Your task to perform on an android device: What's the weather today? Image 0: 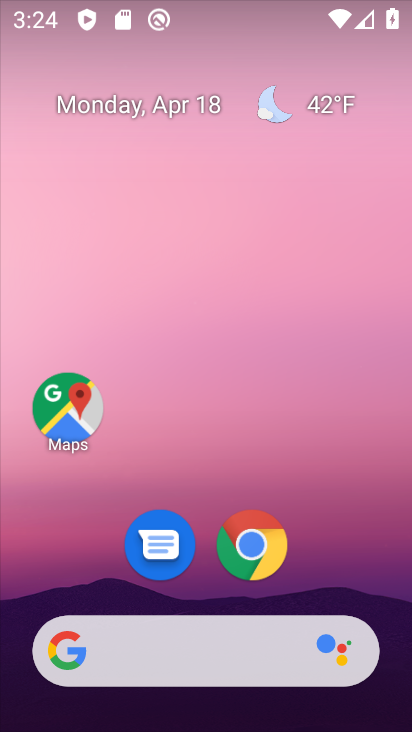
Step 0: click (212, 652)
Your task to perform on an android device: What's the weather today? Image 1: 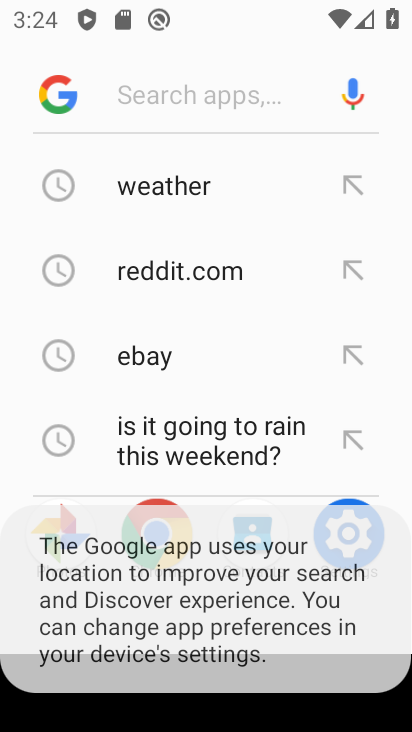
Step 1: click (183, 190)
Your task to perform on an android device: What's the weather today? Image 2: 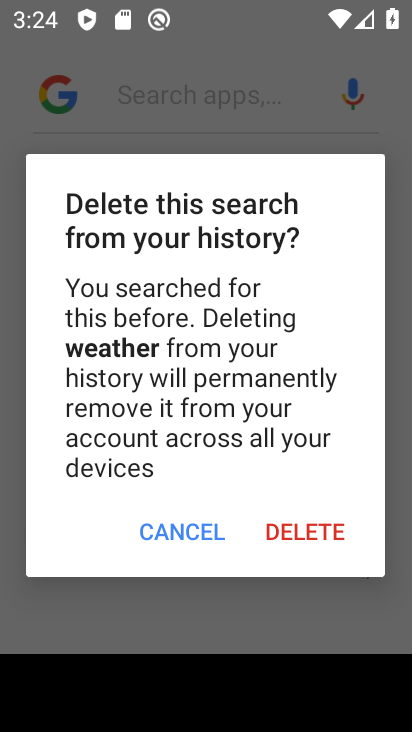
Step 2: click (183, 531)
Your task to perform on an android device: What's the weather today? Image 3: 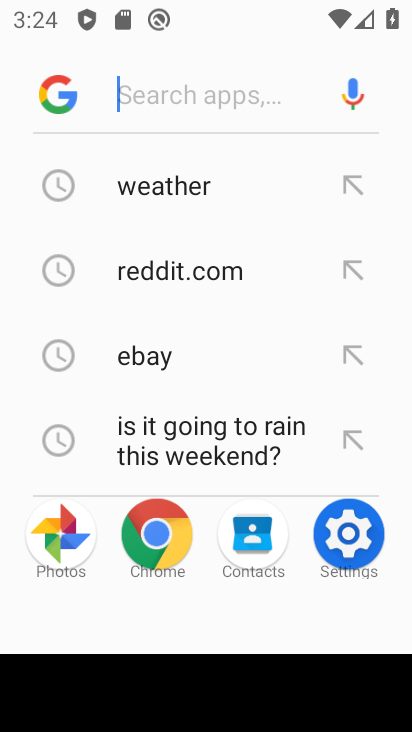
Step 3: click (191, 185)
Your task to perform on an android device: What's the weather today? Image 4: 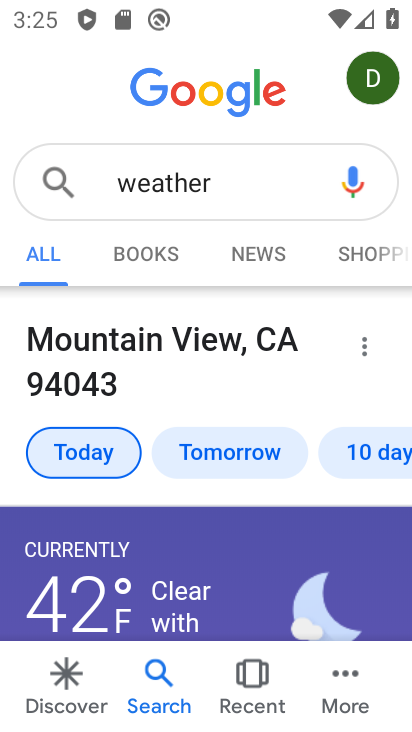
Step 4: task complete